Your task to perform on an android device: remove spam from my inbox in the gmail app Image 0: 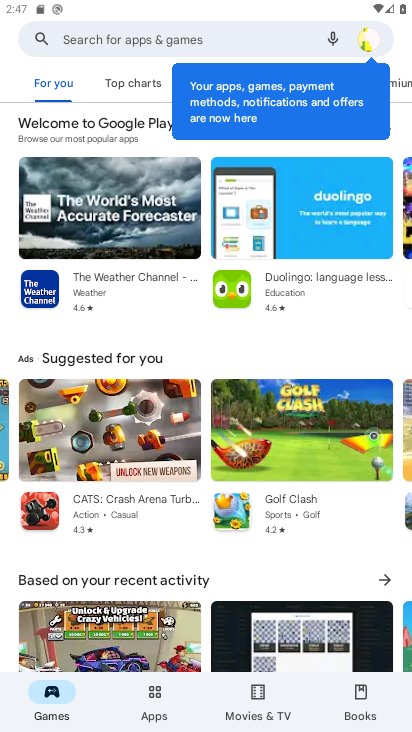
Step 0: press home button
Your task to perform on an android device: remove spam from my inbox in the gmail app Image 1: 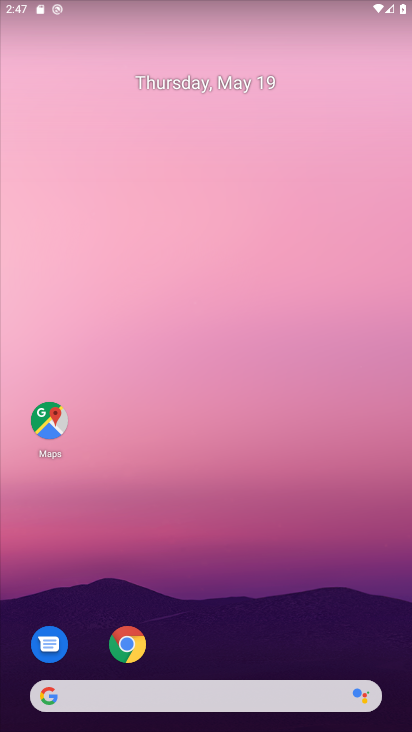
Step 1: drag from (262, 533) to (259, 226)
Your task to perform on an android device: remove spam from my inbox in the gmail app Image 2: 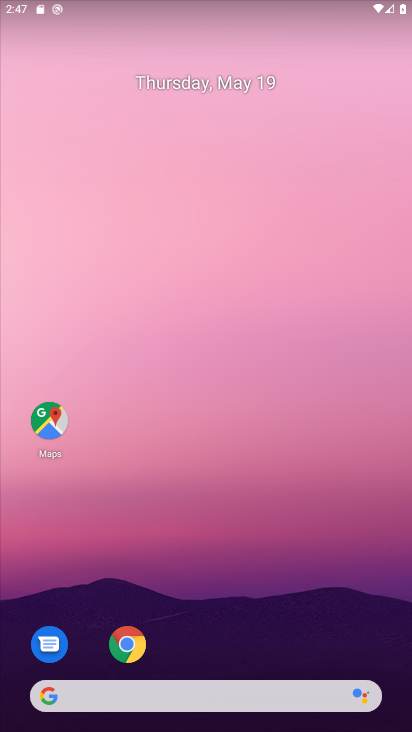
Step 2: drag from (316, 577) to (301, 36)
Your task to perform on an android device: remove spam from my inbox in the gmail app Image 3: 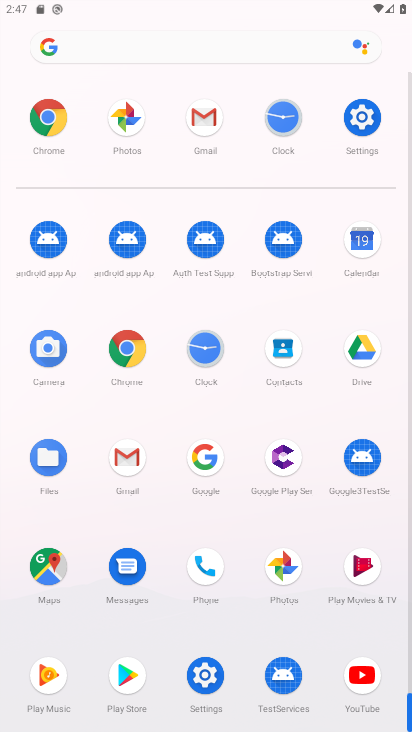
Step 3: click (132, 441)
Your task to perform on an android device: remove spam from my inbox in the gmail app Image 4: 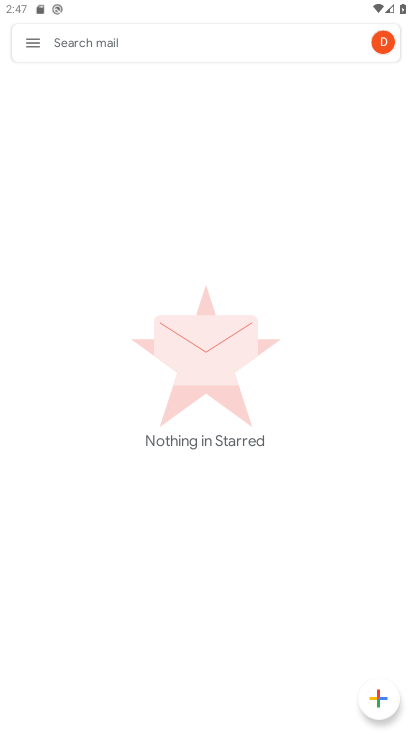
Step 4: click (18, 34)
Your task to perform on an android device: remove spam from my inbox in the gmail app Image 5: 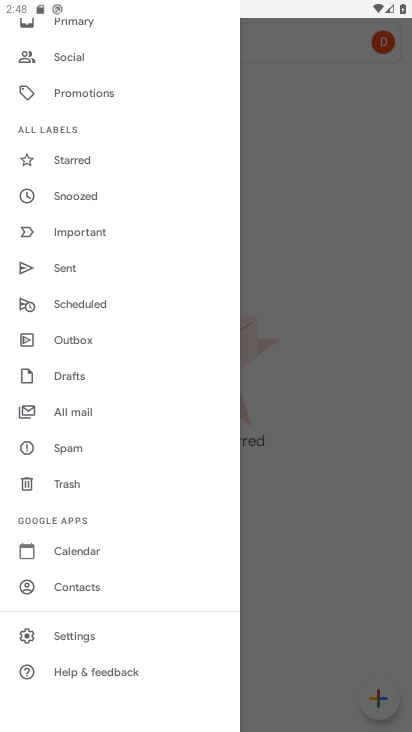
Step 5: click (82, 447)
Your task to perform on an android device: remove spam from my inbox in the gmail app Image 6: 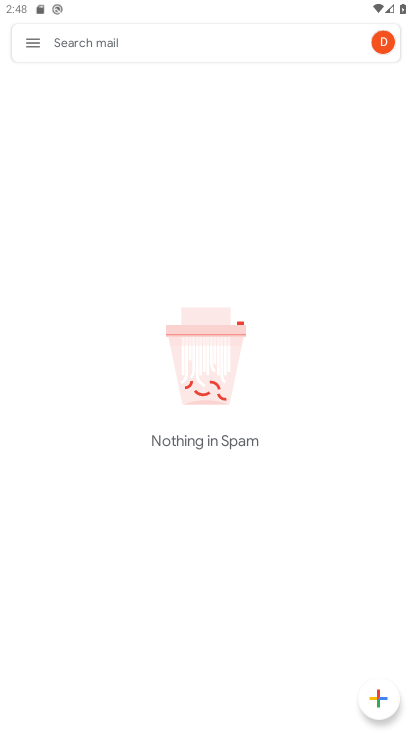
Step 6: task complete